Your task to perform on an android device: Open my contact list Image 0: 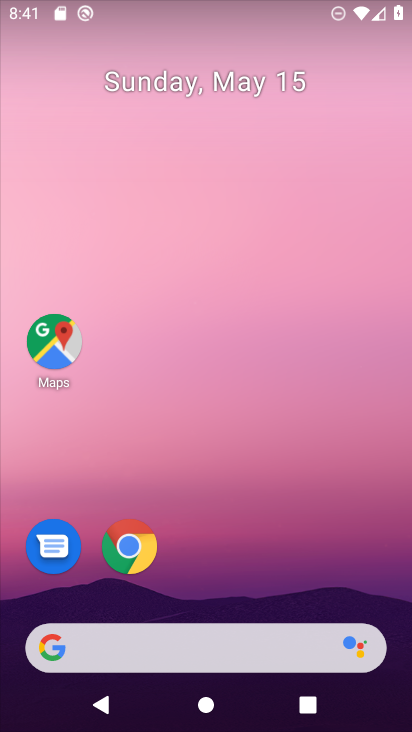
Step 0: drag from (290, 522) to (264, 44)
Your task to perform on an android device: Open my contact list Image 1: 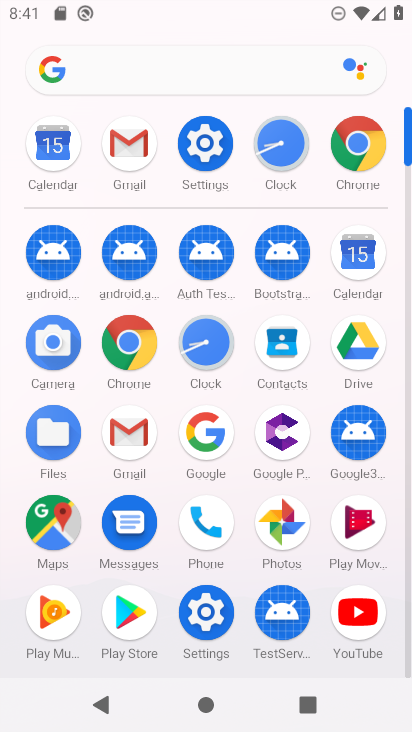
Step 1: click (282, 345)
Your task to perform on an android device: Open my contact list Image 2: 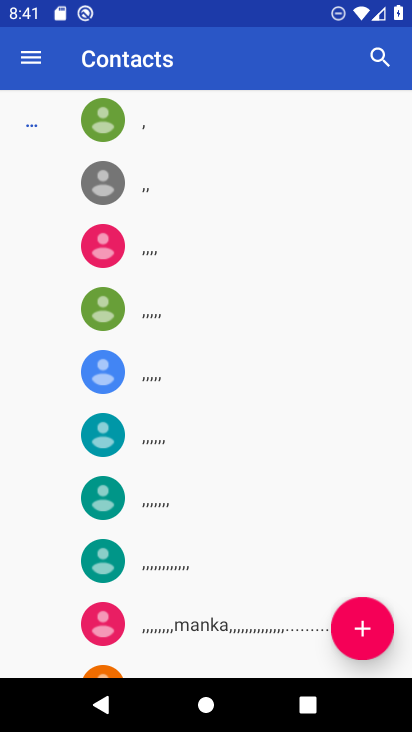
Step 2: task complete